Your task to perform on an android device: change the clock style Image 0: 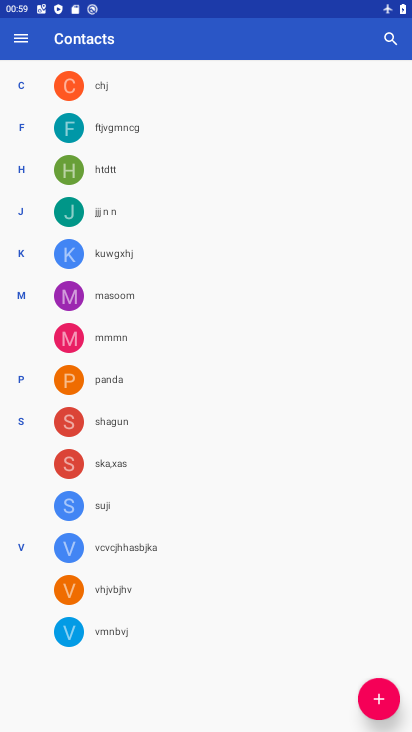
Step 0: drag from (299, 669) to (254, 238)
Your task to perform on an android device: change the clock style Image 1: 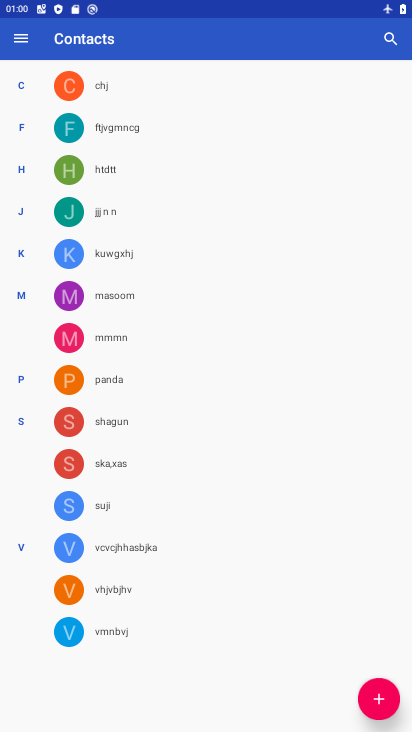
Step 1: press home button
Your task to perform on an android device: change the clock style Image 2: 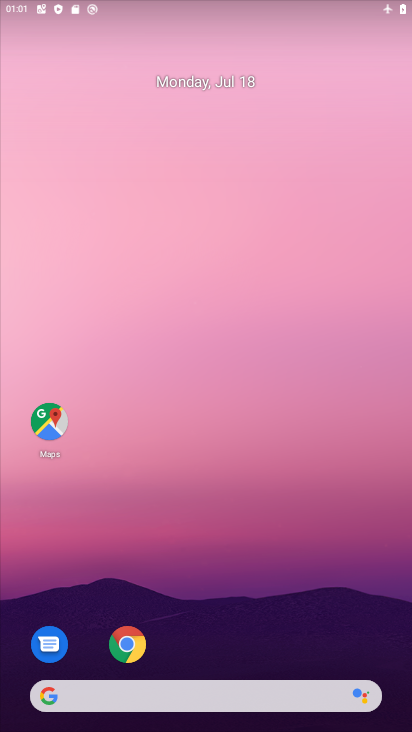
Step 2: drag from (277, 626) to (276, 13)
Your task to perform on an android device: change the clock style Image 3: 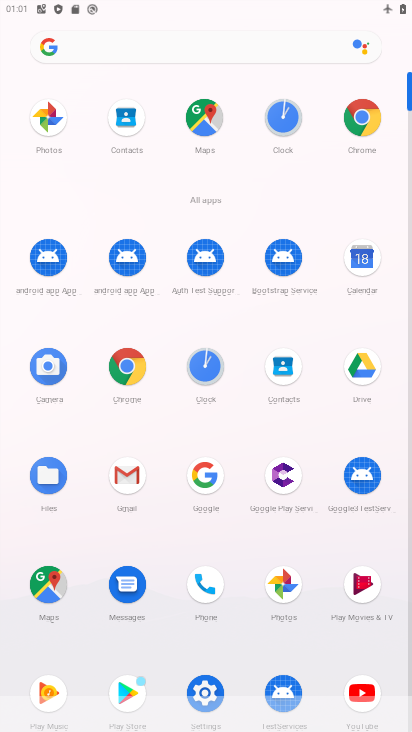
Step 3: click (280, 140)
Your task to perform on an android device: change the clock style Image 4: 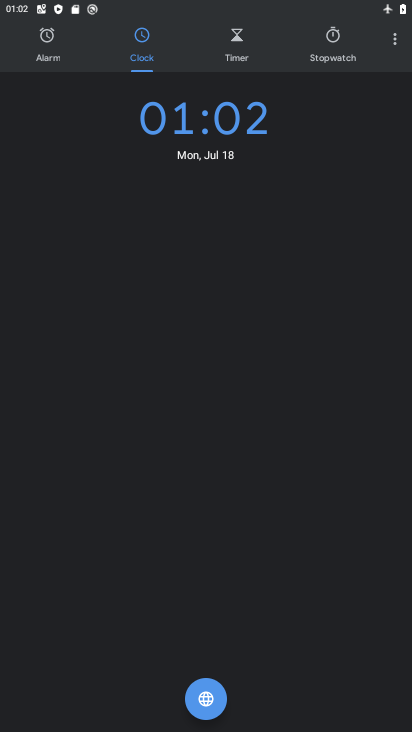
Step 4: click (402, 29)
Your task to perform on an android device: change the clock style Image 5: 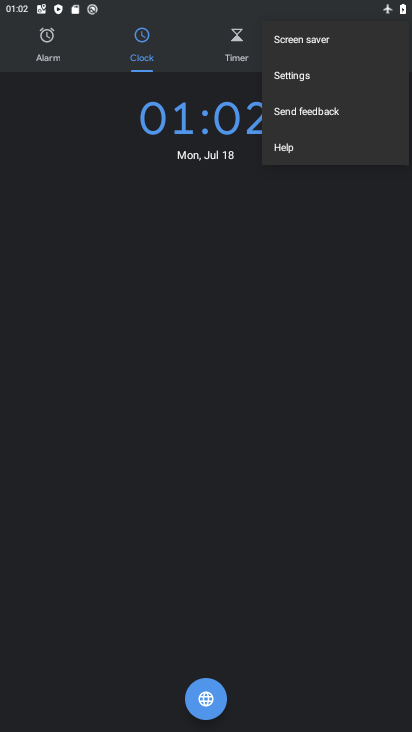
Step 5: click (276, 83)
Your task to perform on an android device: change the clock style Image 6: 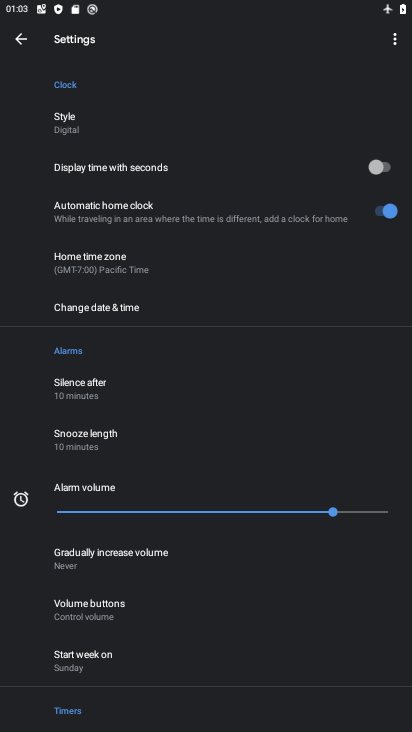
Step 6: click (65, 134)
Your task to perform on an android device: change the clock style Image 7: 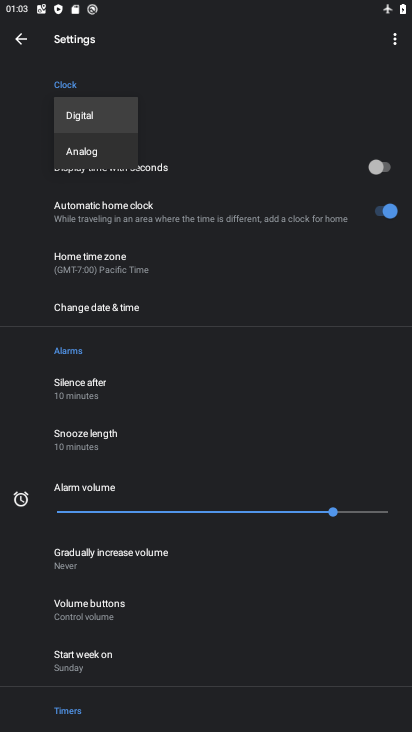
Step 7: click (88, 149)
Your task to perform on an android device: change the clock style Image 8: 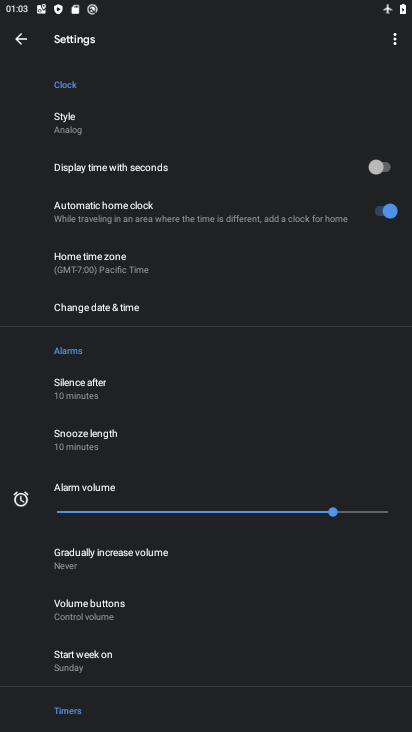
Step 8: task complete